Your task to perform on an android device: Go to Android settings Image 0: 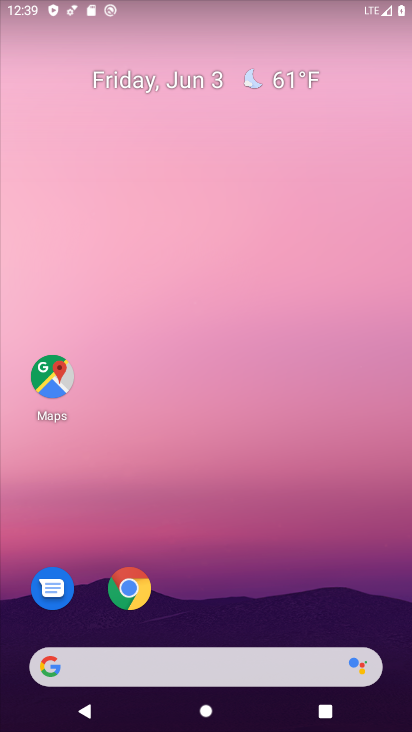
Step 0: drag from (237, 596) to (233, 130)
Your task to perform on an android device: Go to Android settings Image 1: 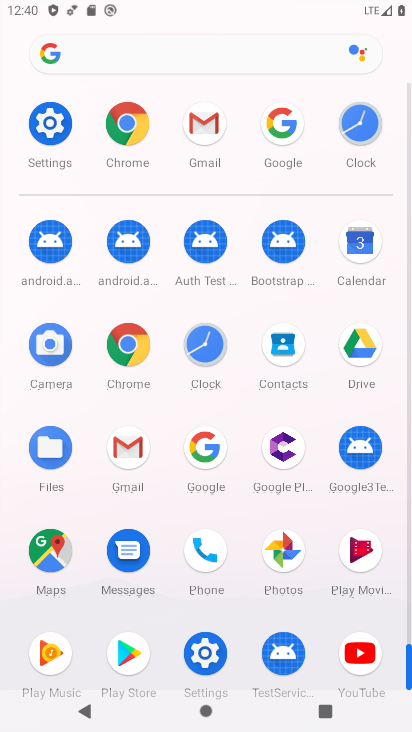
Step 1: click (205, 642)
Your task to perform on an android device: Go to Android settings Image 2: 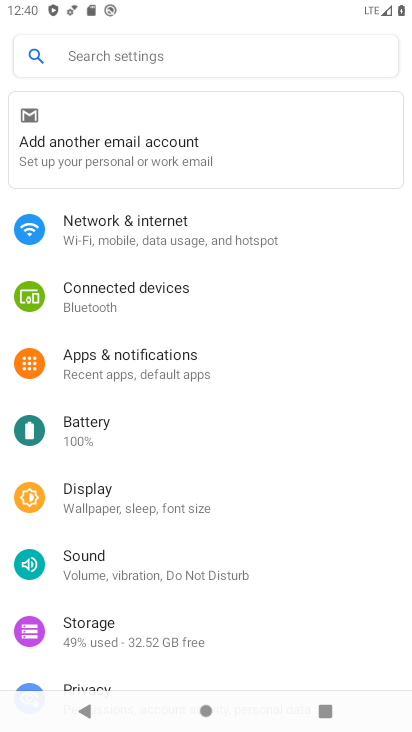
Step 2: task complete